Your task to perform on an android device: What is the news today? Image 0: 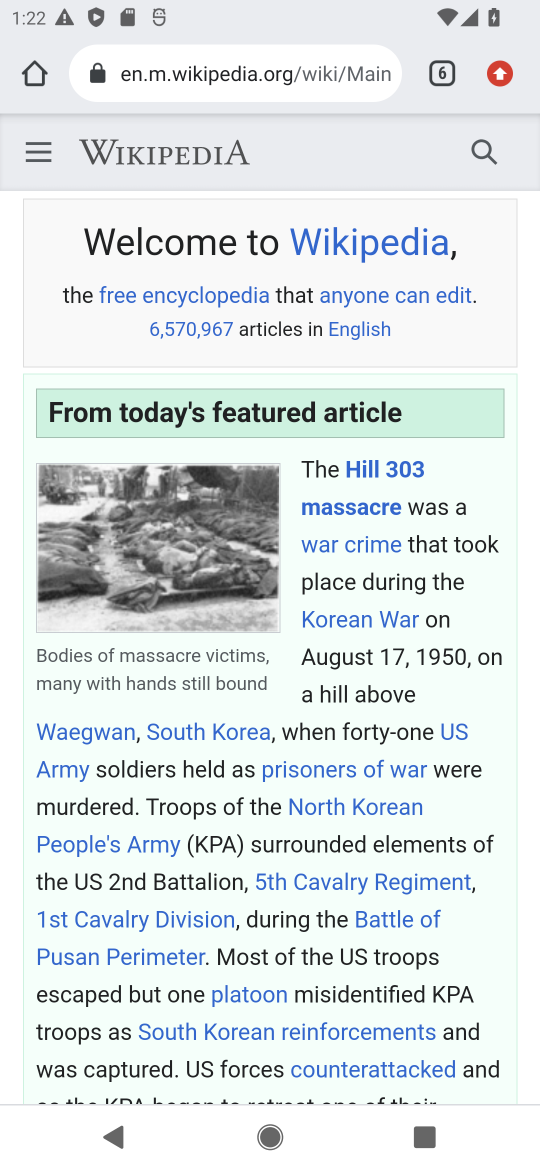
Step 0: press back button
Your task to perform on an android device: What is the news today? Image 1: 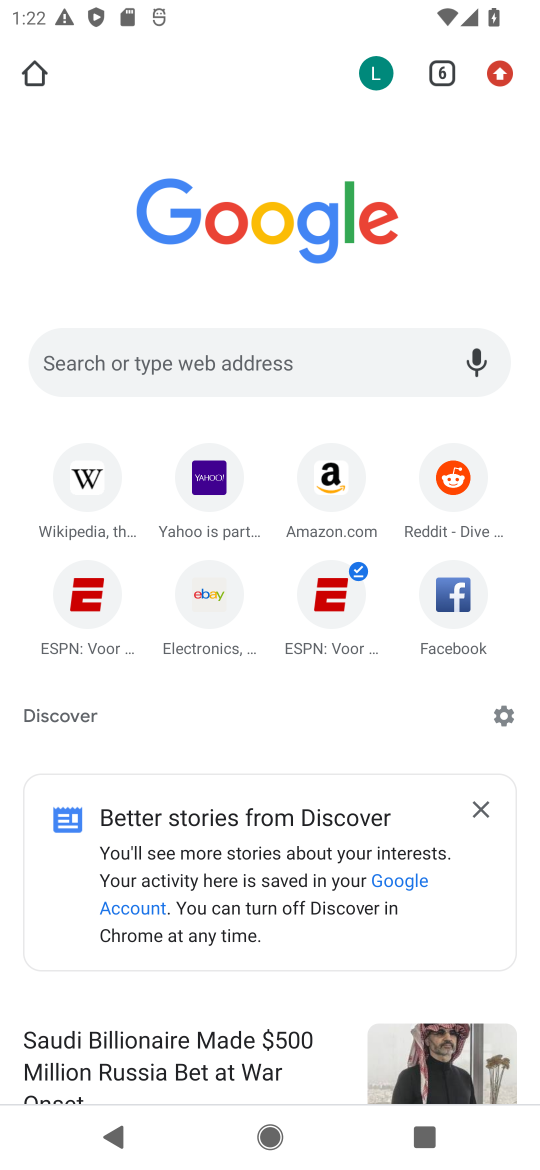
Step 1: click (199, 362)
Your task to perform on an android device: What is the news today? Image 2: 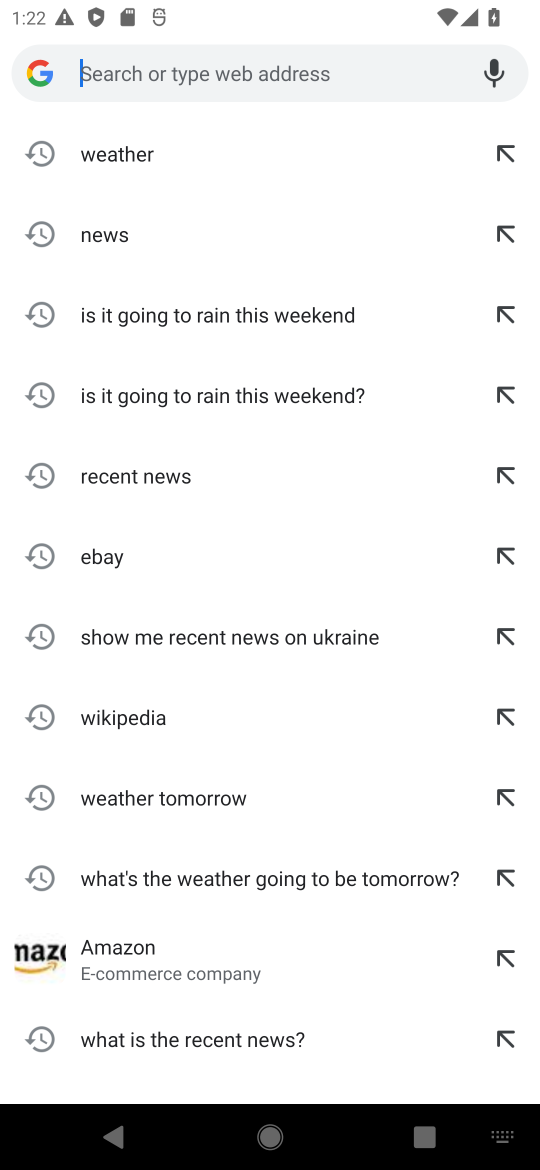
Step 2: click (137, 241)
Your task to perform on an android device: What is the news today? Image 3: 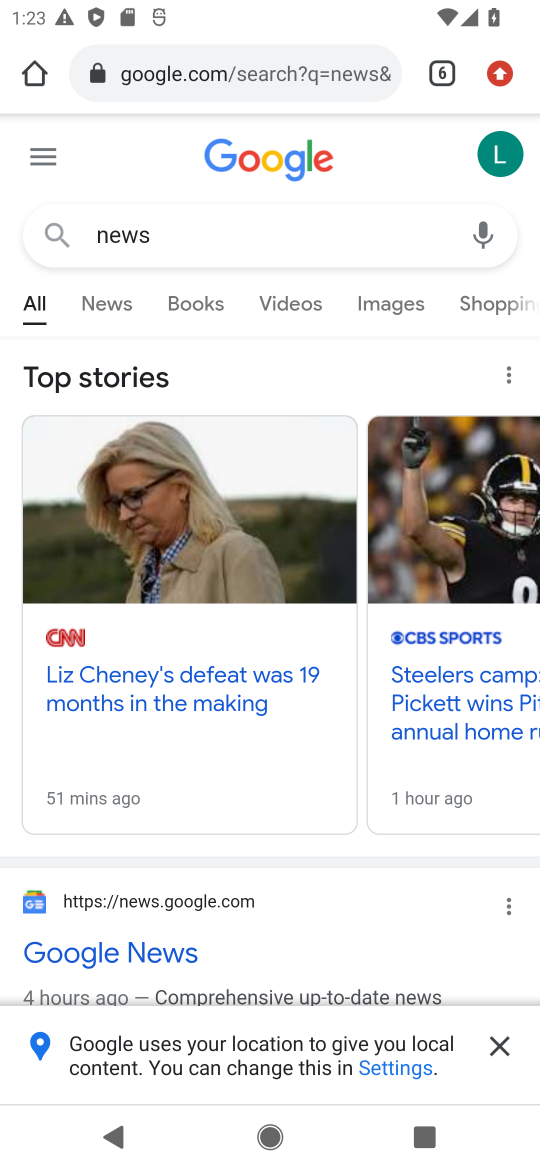
Step 3: task complete